Your task to perform on an android device: open a bookmark in the chrome app Image 0: 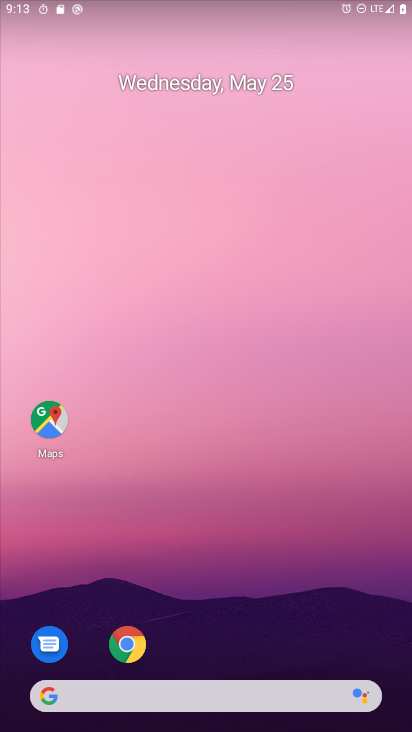
Step 0: drag from (334, 593) to (237, 119)
Your task to perform on an android device: open a bookmark in the chrome app Image 1: 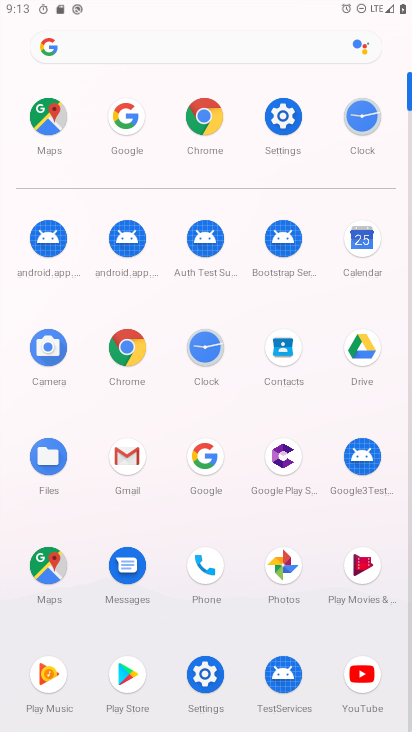
Step 1: click (194, 119)
Your task to perform on an android device: open a bookmark in the chrome app Image 2: 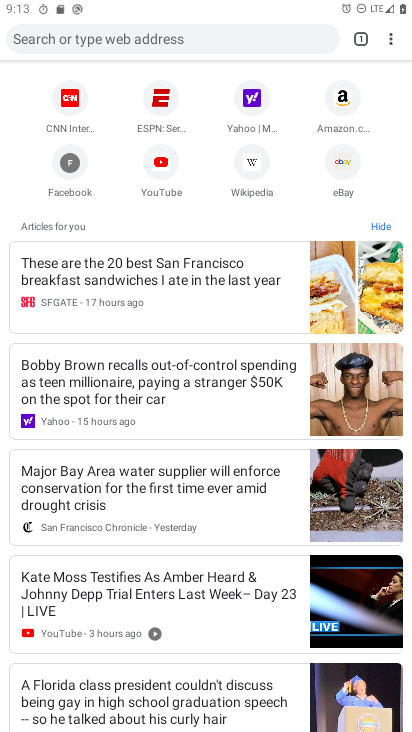
Step 2: click (399, 34)
Your task to perform on an android device: open a bookmark in the chrome app Image 3: 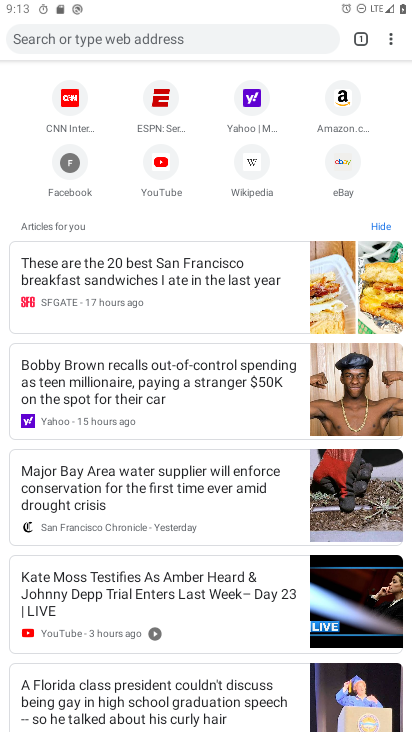
Step 3: click (384, 30)
Your task to perform on an android device: open a bookmark in the chrome app Image 4: 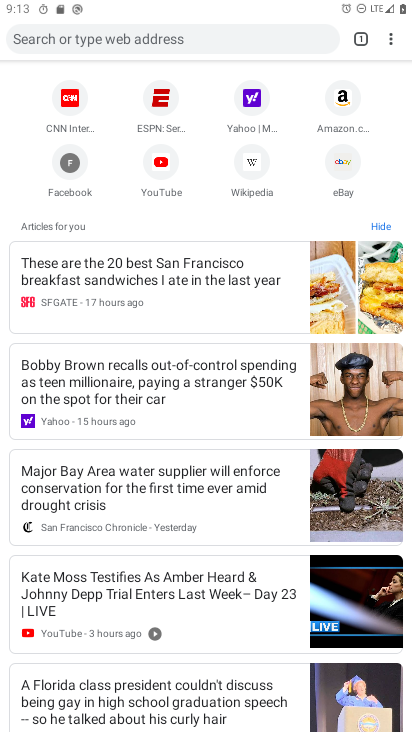
Step 4: click (387, 31)
Your task to perform on an android device: open a bookmark in the chrome app Image 5: 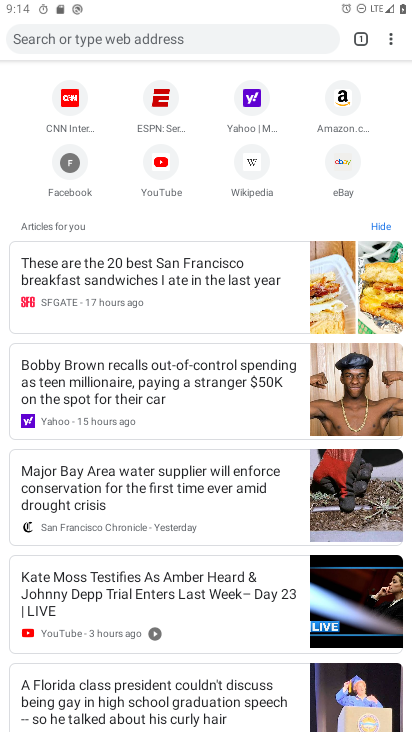
Step 5: click (387, 38)
Your task to perform on an android device: open a bookmark in the chrome app Image 6: 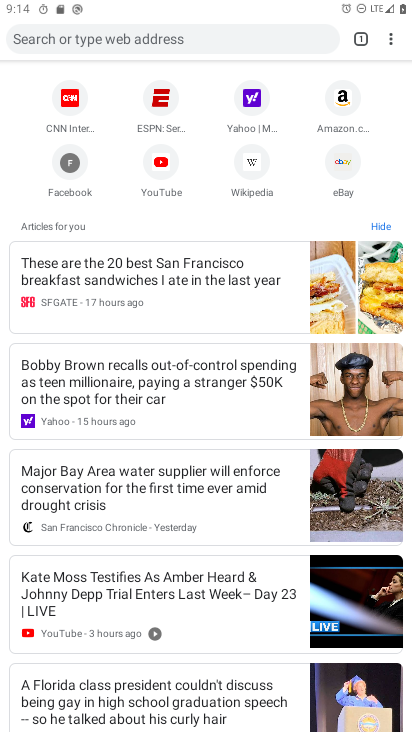
Step 6: click (391, 36)
Your task to perform on an android device: open a bookmark in the chrome app Image 7: 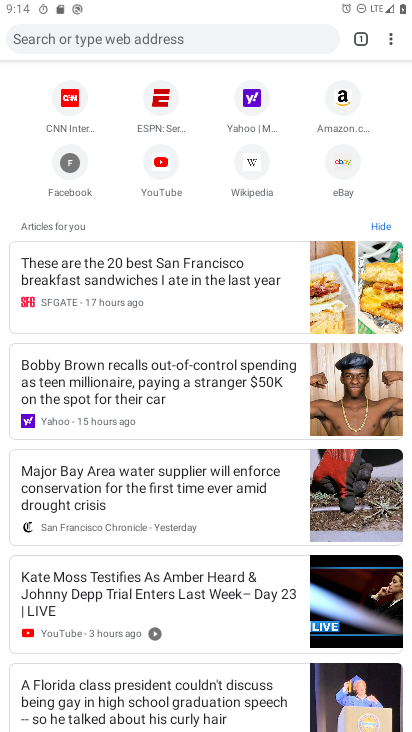
Step 7: click (391, 36)
Your task to perform on an android device: open a bookmark in the chrome app Image 8: 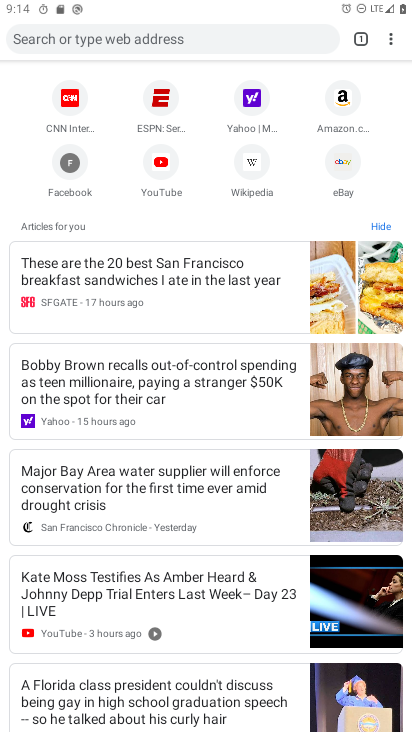
Step 8: click (390, 41)
Your task to perform on an android device: open a bookmark in the chrome app Image 9: 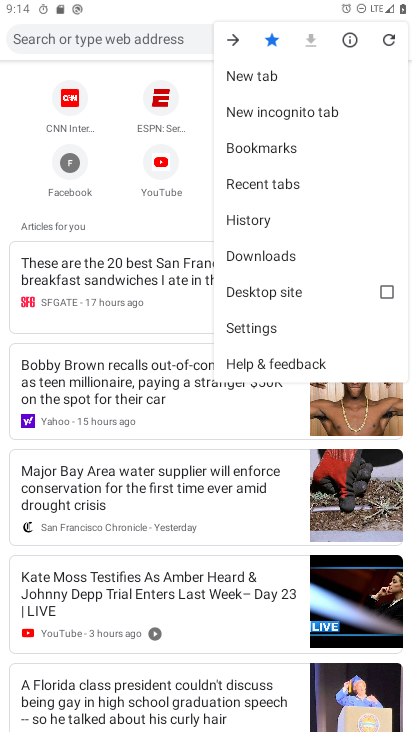
Step 9: click (256, 150)
Your task to perform on an android device: open a bookmark in the chrome app Image 10: 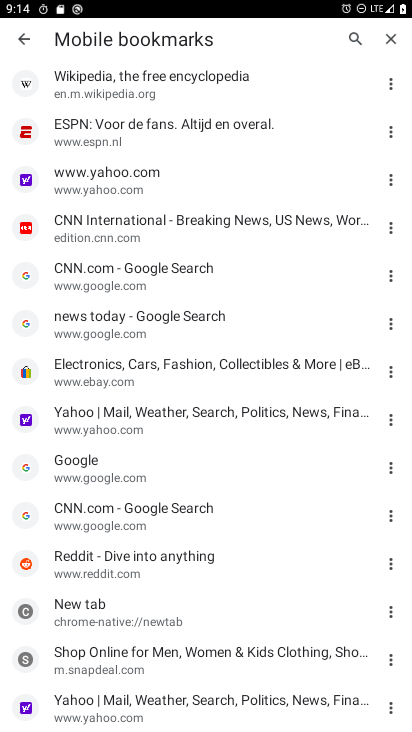
Step 10: task complete